Your task to perform on an android device: open chrome and create a bookmark for the current page Image 0: 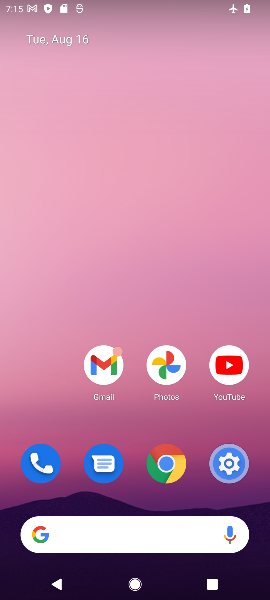
Step 0: click (170, 471)
Your task to perform on an android device: open chrome and create a bookmark for the current page Image 1: 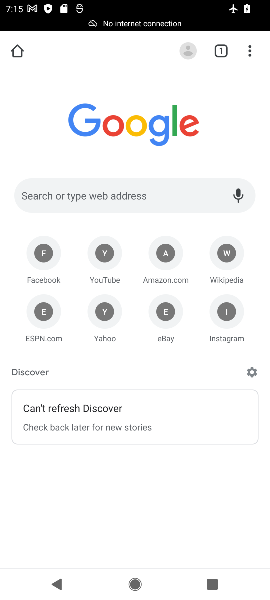
Step 1: click (247, 51)
Your task to perform on an android device: open chrome and create a bookmark for the current page Image 2: 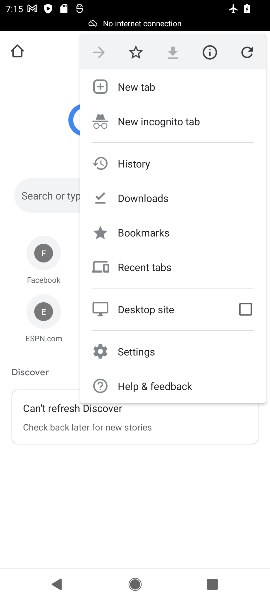
Step 2: click (138, 52)
Your task to perform on an android device: open chrome and create a bookmark for the current page Image 3: 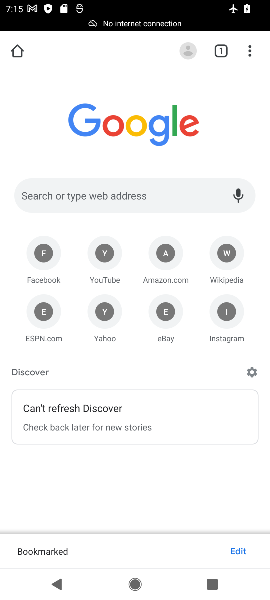
Step 3: task complete